Your task to perform on an android device: Open Google Chrome and click the shortcut for Amazon.com Image 0: 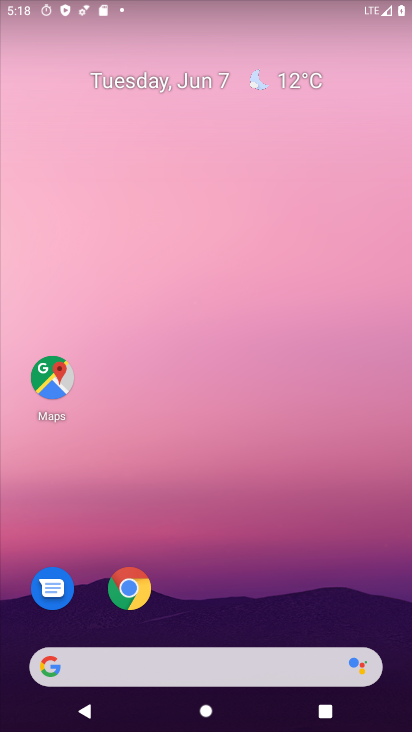
Step 0: click (132, 601)
Your task to perform on an android device: Open Google Chrome and click the shortcut for Amazon.com Image 1: 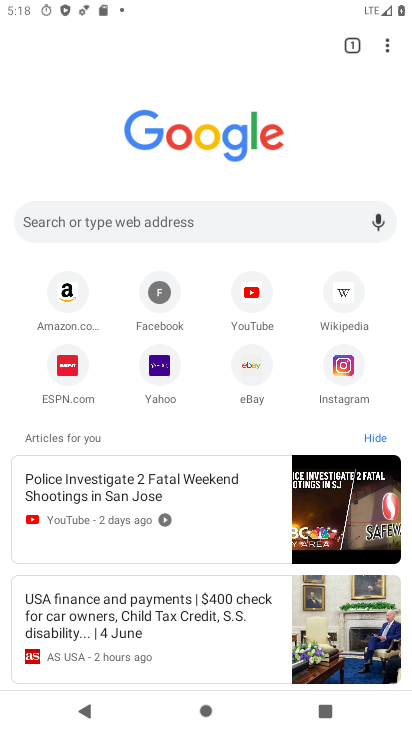
Step 1: click (65, 298)
Your task to perform on an android device: Open Google Chrome and click the shortcut for Amazon.com Image 2: 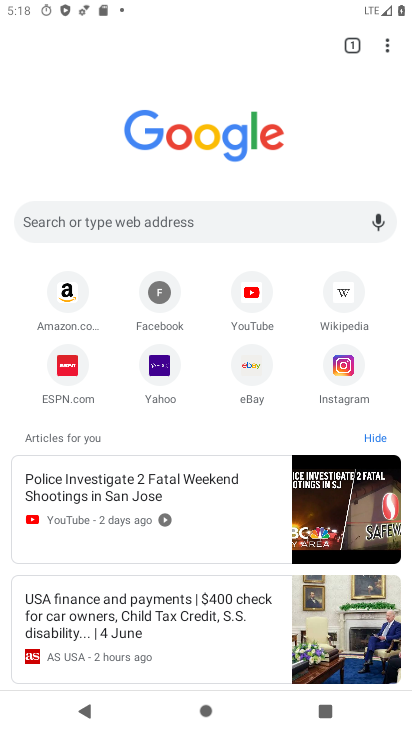
Step 2: click (66, 297)
Your task to perform on an android device: Open Google Chrome and click the shortcut for Amazon.com Image 3: 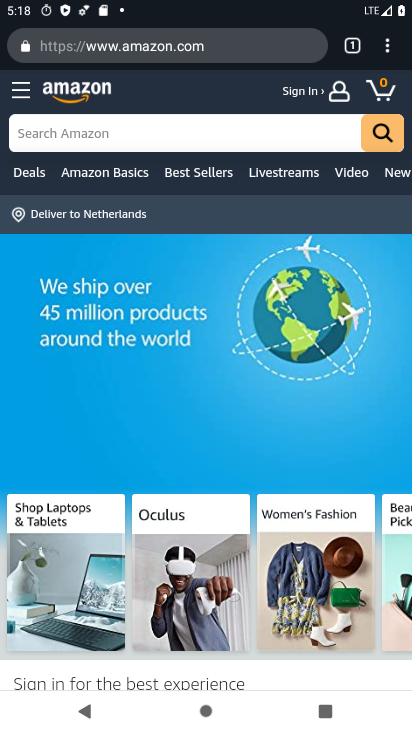
Step 3: task complete